Your task to perform on an android device: toggle data saver in the chrome app Image 0: 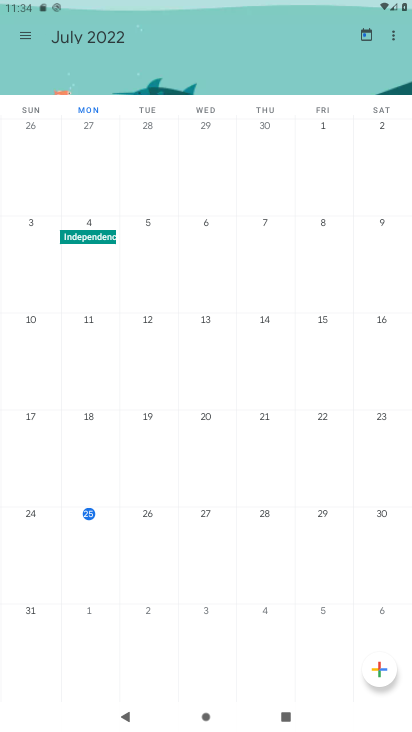
Step 0: press home button
Your task to perform on an android device: toggle data saver in the chrome app Image 1: 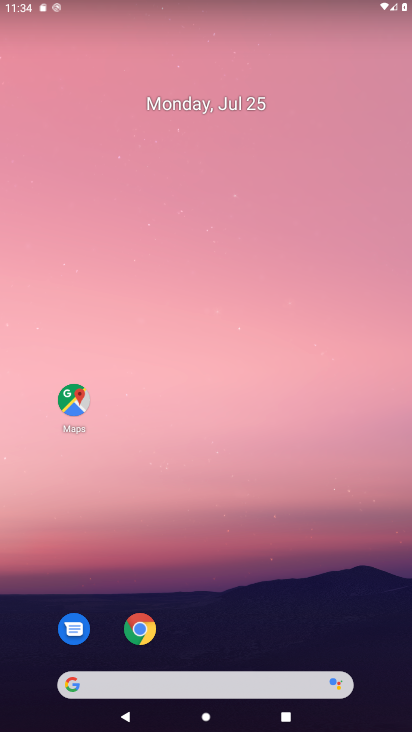
Step 1: drag from (210, 682) to (222, 196)
Your task to perform on an android device: toggle data saver in the chrome app Image 2: 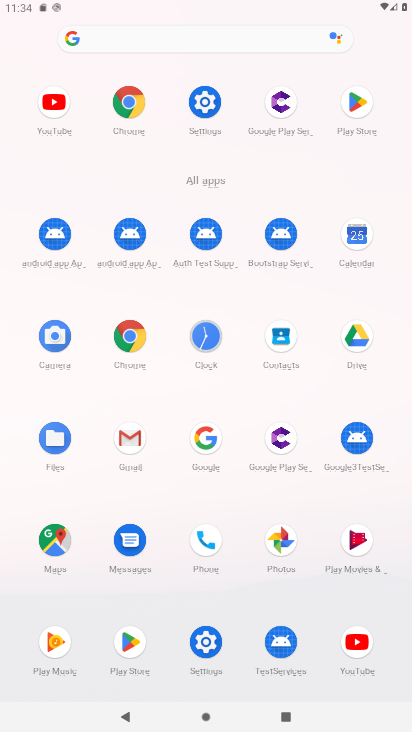
Step 2: click (124, 107)
Your task to perform on an android device: toggle data saver in the chrome app Image 3: 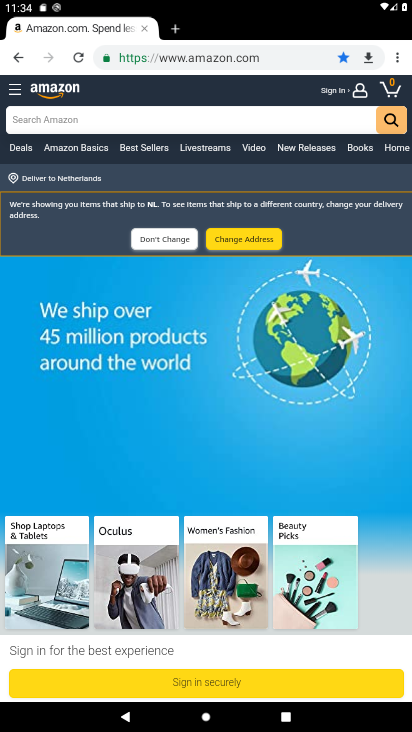
Step 3: drag from (400, 56) to (311, 385)
Your task to perform on an android device: toggle data saver in the chrome app Image 4: 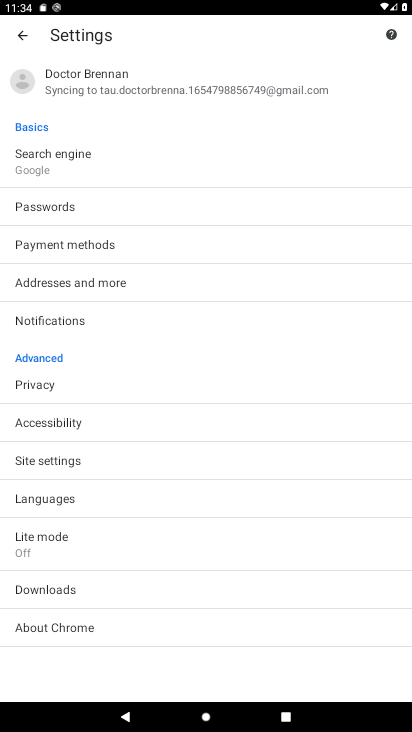
Step 4: click (81, 541)
Your task to perform on an android device: toggle data saver in the chrome app Image 5: 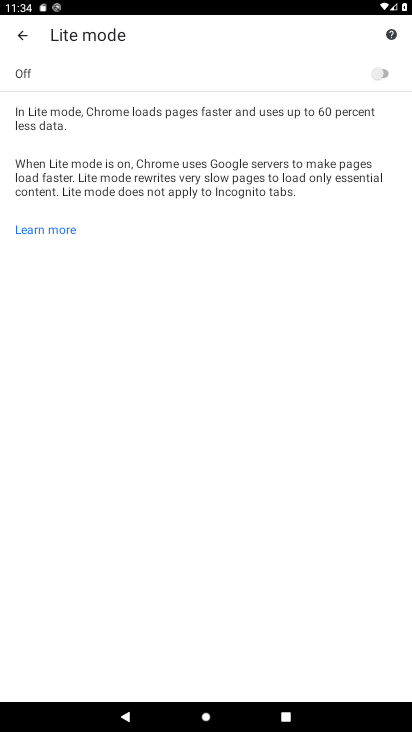
Step 5: click (378, 80)
Your task to perform on an android device: toggle data saver in the chrome app Image 6: 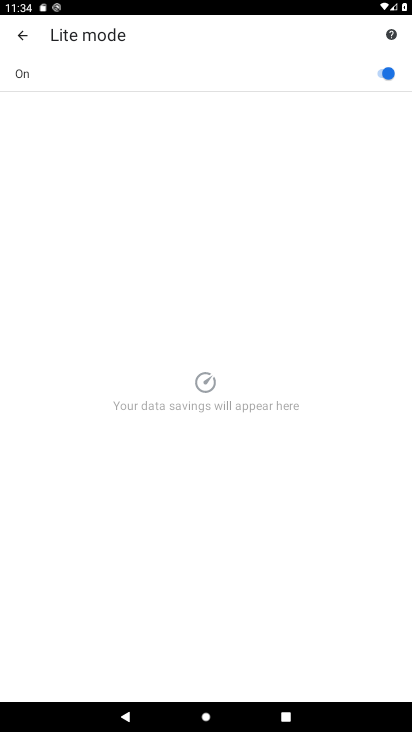
Step 6: task complete